Your task to perform on an android device: Do I have any events today? Image 0: 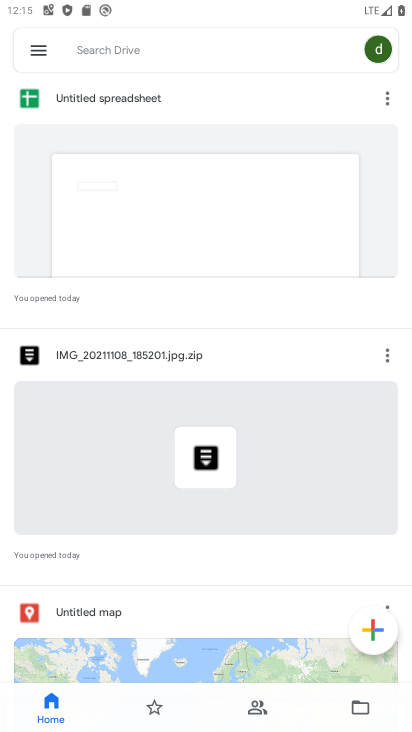
Step 0: press home button
Your task to perform on an android device: Do I have any events today? Image 1: 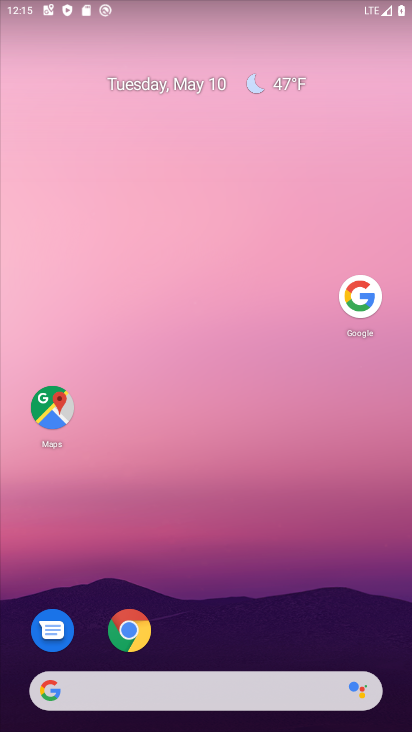
Step 1: drag from (202, 674) to (373, 110)
Your task to perform on an android device: Do I have any events today? Image 2: 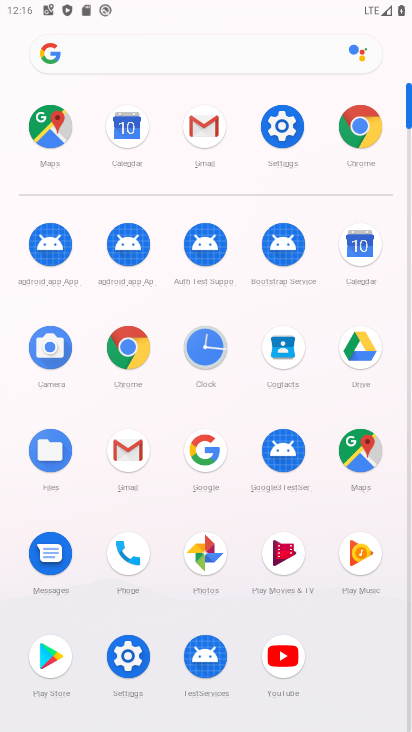
Step 2: click (354, 254)
Your task to perform on an android device: Do I have any events today? Image 3: 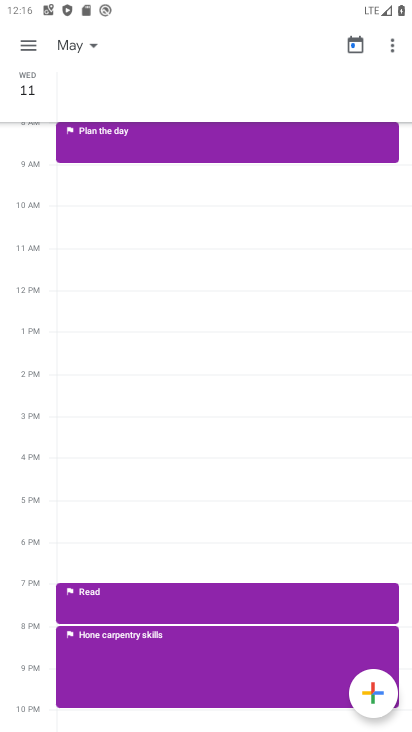
Step 3: click (77, 42)
Your task to perform on an android device: Do I have any events today? Image 4: 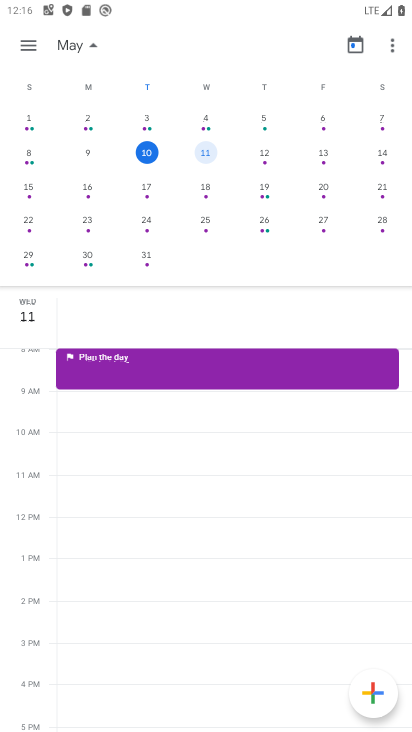
Step 4: click (148, 152)
Your task to perform on an android device: Do I have any events today? Image 5: 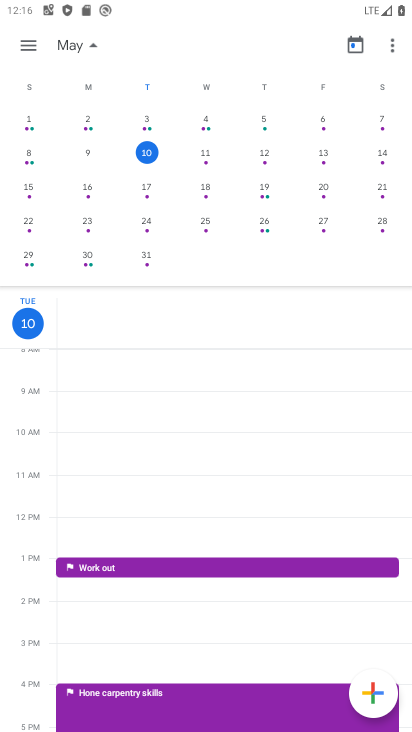
Step 5: click (29, 49)
Your task to perform on an android device: Do I have any events today? Image 6: 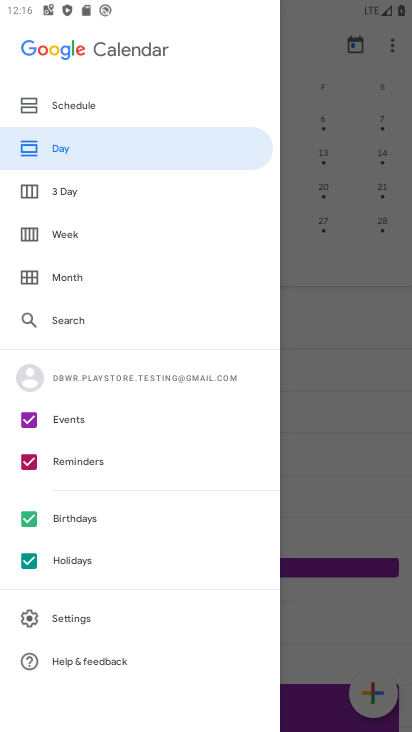
Step 6: click (97, 104)
Your task to perform on an android device: Do I have any events today? Image 7: 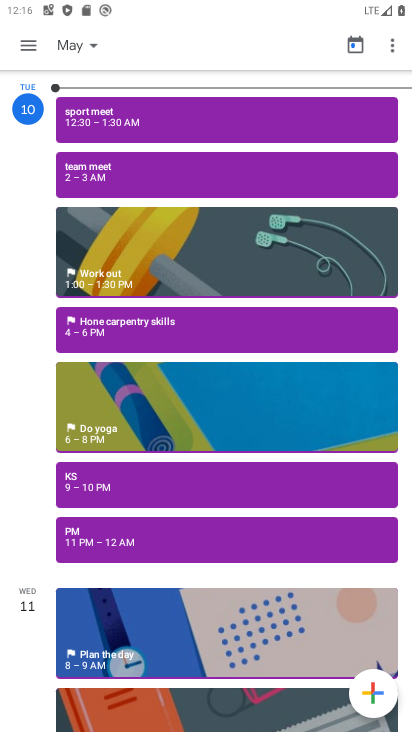
Step 7: click (101, 178)
Your task to perform on an android device: Do I have any events today? Image 8: 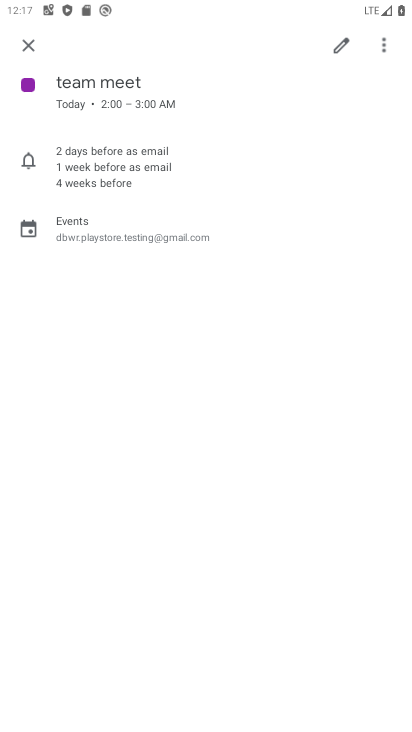
Step 8: task complete